Your task to perform on an android device: Toggle the flashlight Image 0: 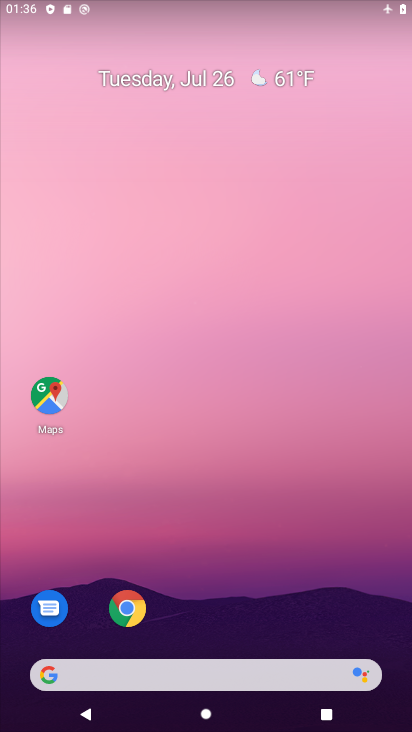
Step 0: drag from (16, 682) to (254, 42)
Your task to perform on an android device: Toggle the flashlight Image 1: 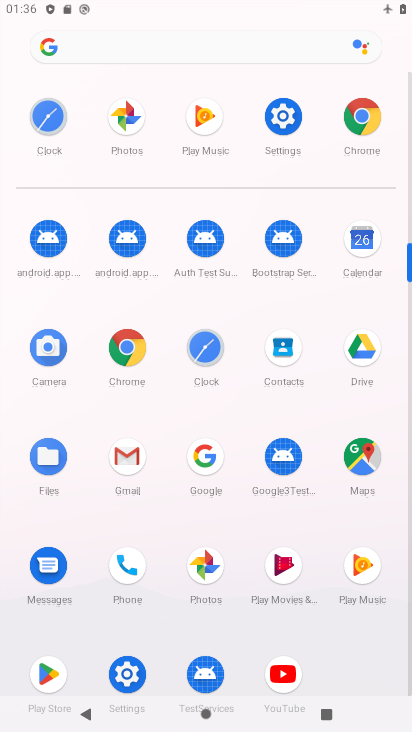
Step 1: click (290, 122)
Your task to perform on an android device: Toggle the flashlight Image 2: 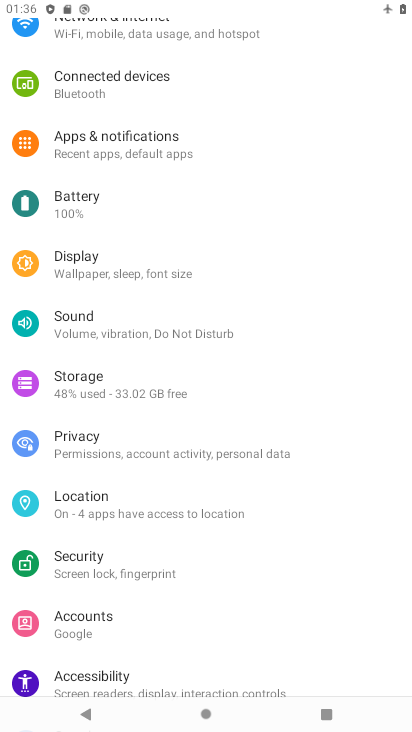
Step 2: task complete